Your task to perform on an android device: uninstall "Adobe Express: Graphic Design" Image 0: 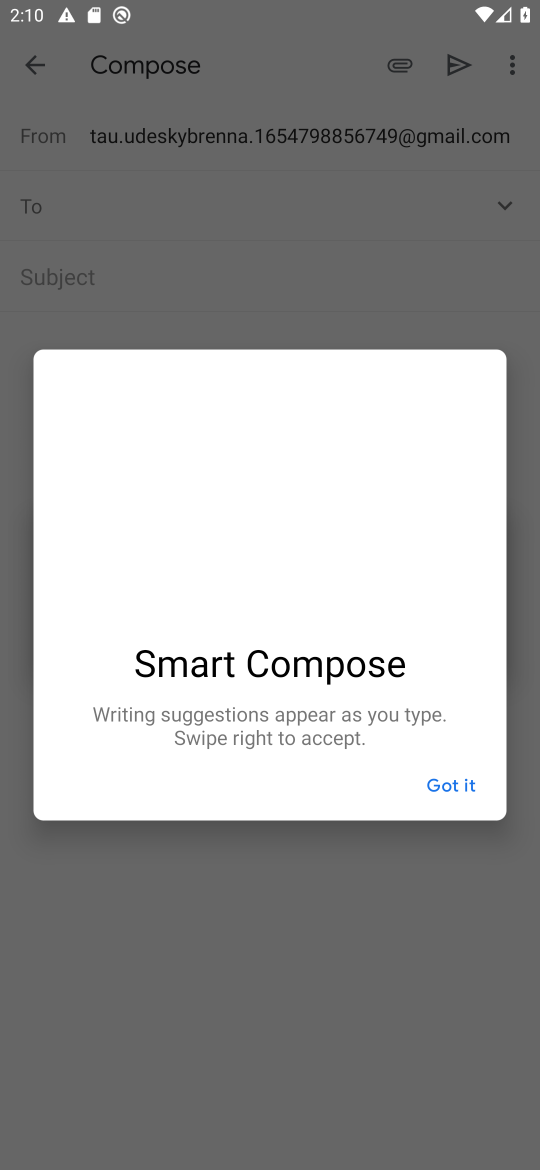
Step 0: press home button
Your task to perform on an android device: uninstall "Adobe Express: Graphic Design" Image 1: 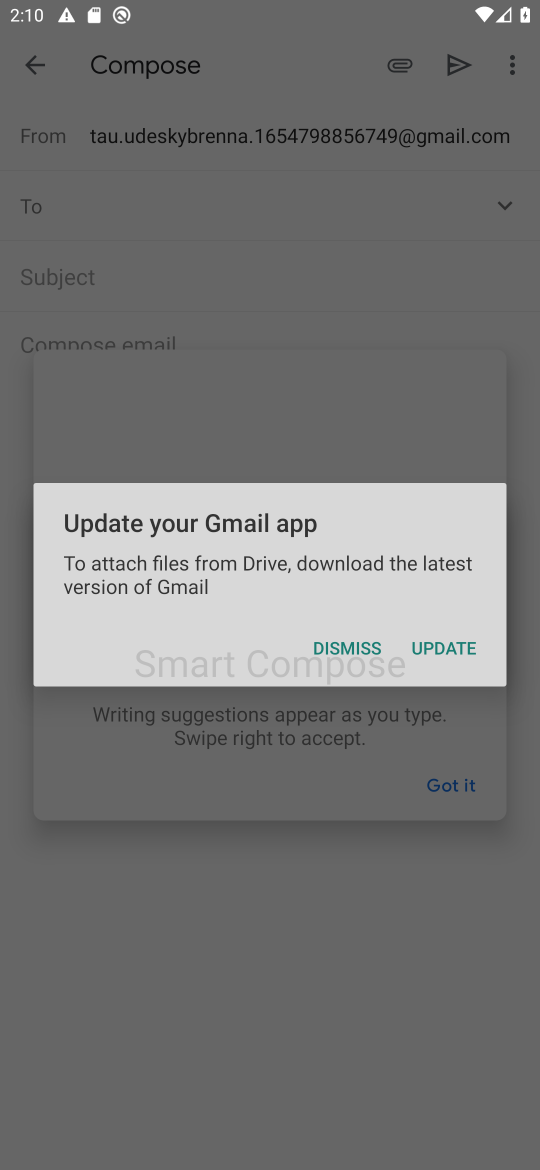
Step 1: press home button
Your task to perform on an android device: uninstall "Adobe Express: Graphic Design" Image 2: 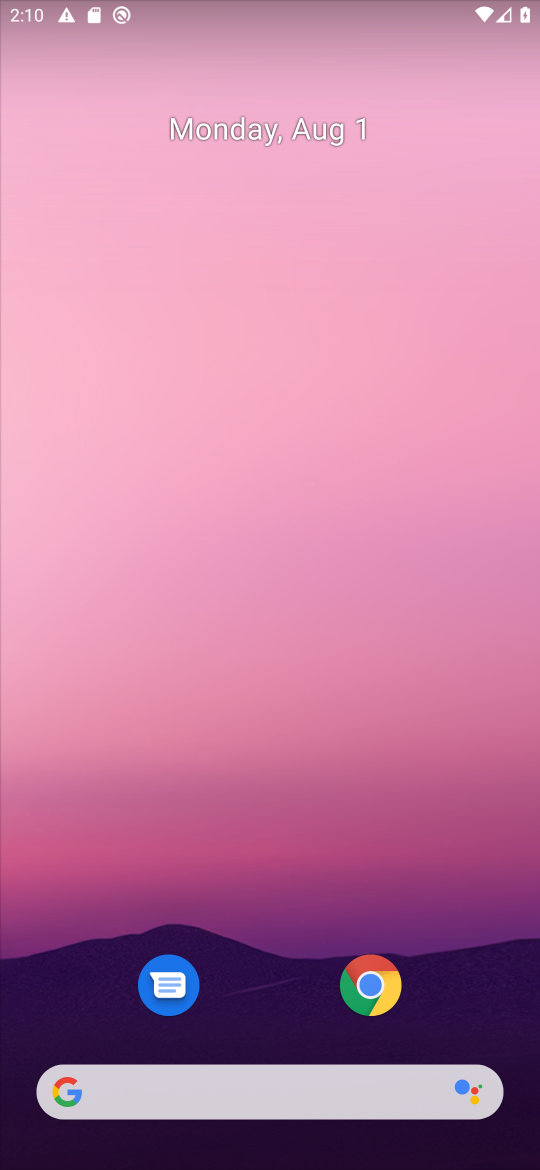
Step 2: drag from (310, 1145) to (342, 99)
Your task to perform on an android device: uninstall "Adobe Express: Graphic Design" Image 3: 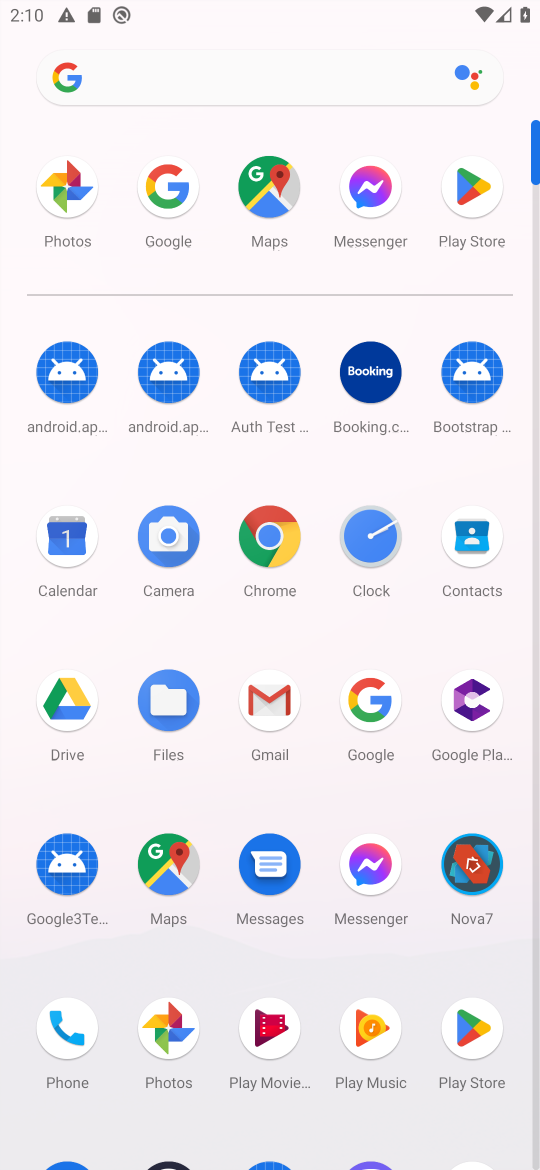
Step 3: click (460, 189)
Your task to perform on an android device: uninstall "Adobe Express: Graphic Design" Image 4: 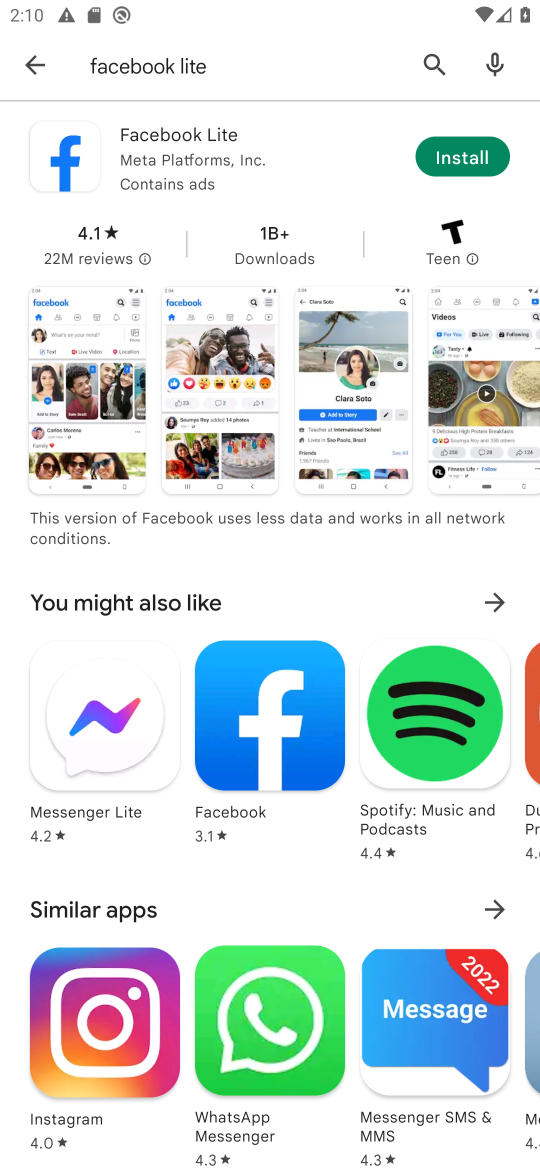
Step 4: click (428, 62)
Your task to perform on an android device: uninstall "Adobe Express: Graphic Design" Image 5: 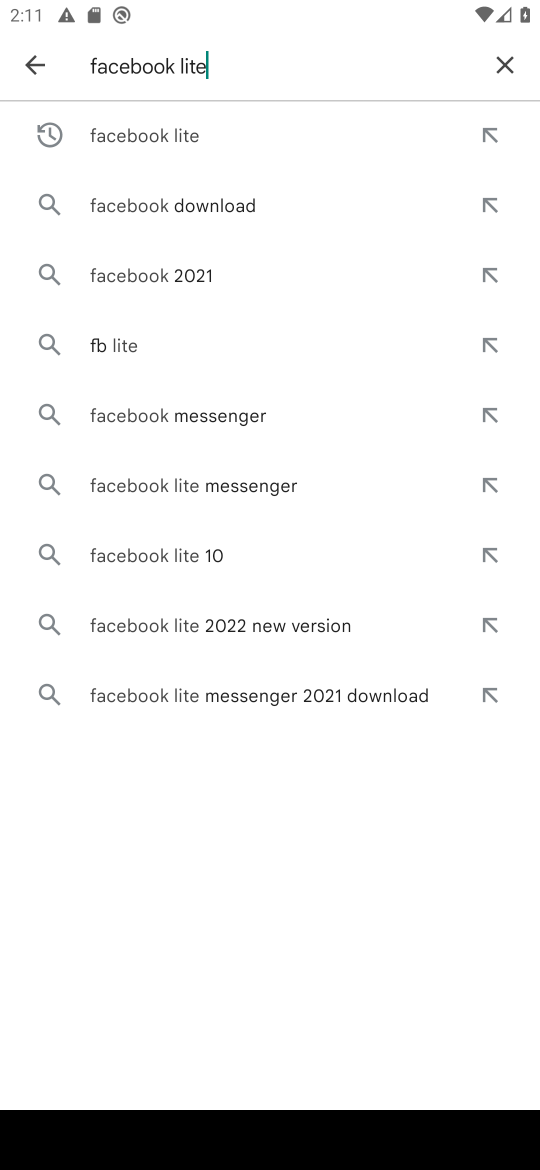
Step 5: click (520, 69)
Your task to perform on an android device: uninstall "Adobe Express: Graphic Design" Image 6: 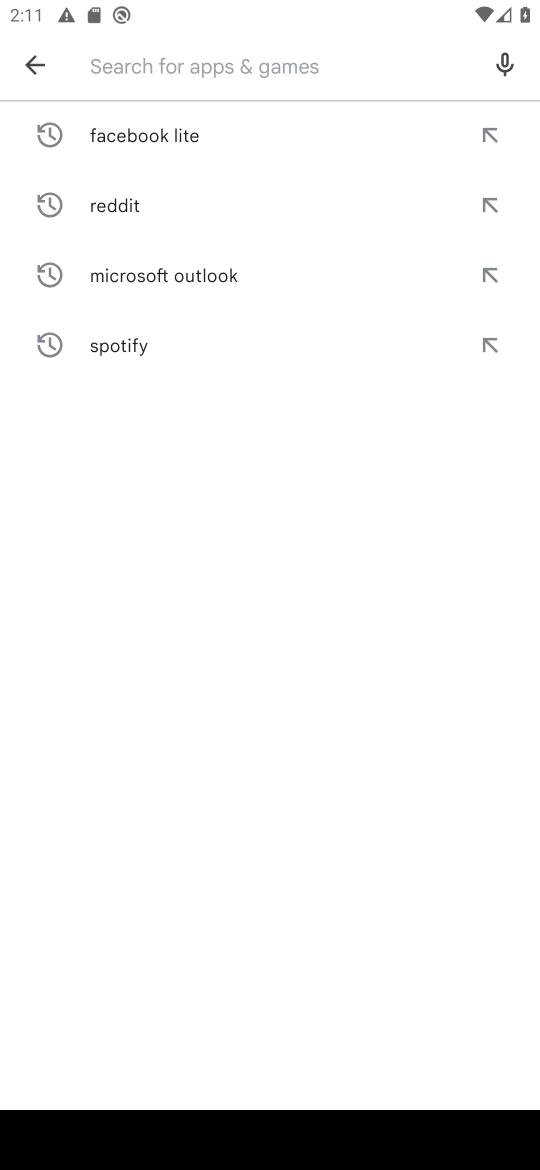
Step 6: type "Adobe Express: Graphic Design"
Your task to perform on an android device: uninstall "Adobe Express: Graphic Design" Image 7: 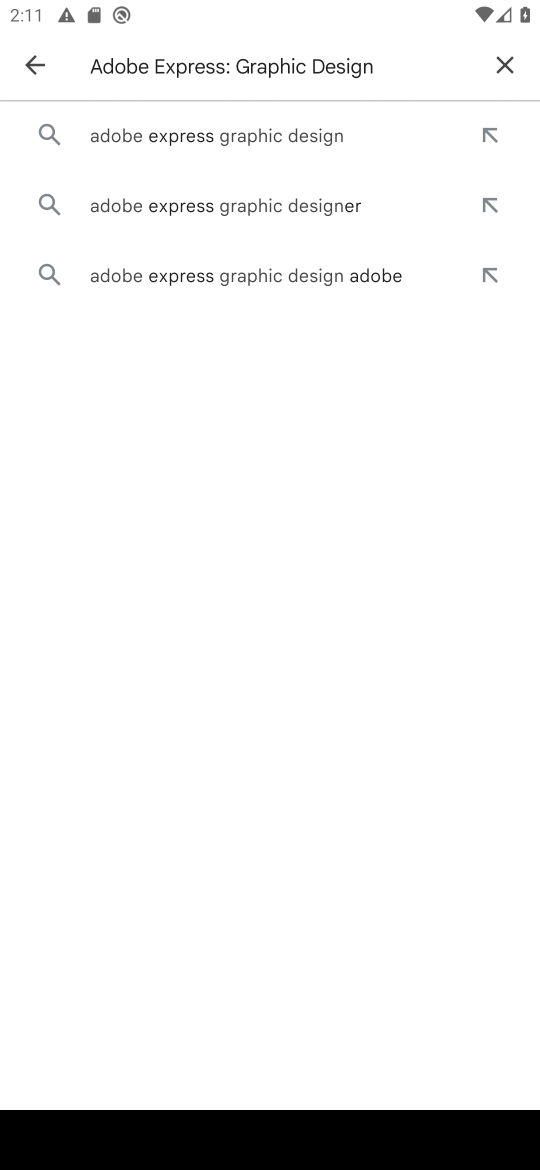
Step 7: click (247, 140)
Your task to perform on an android device: uninstall "Adobe Express: Graphic Design" Image 8: 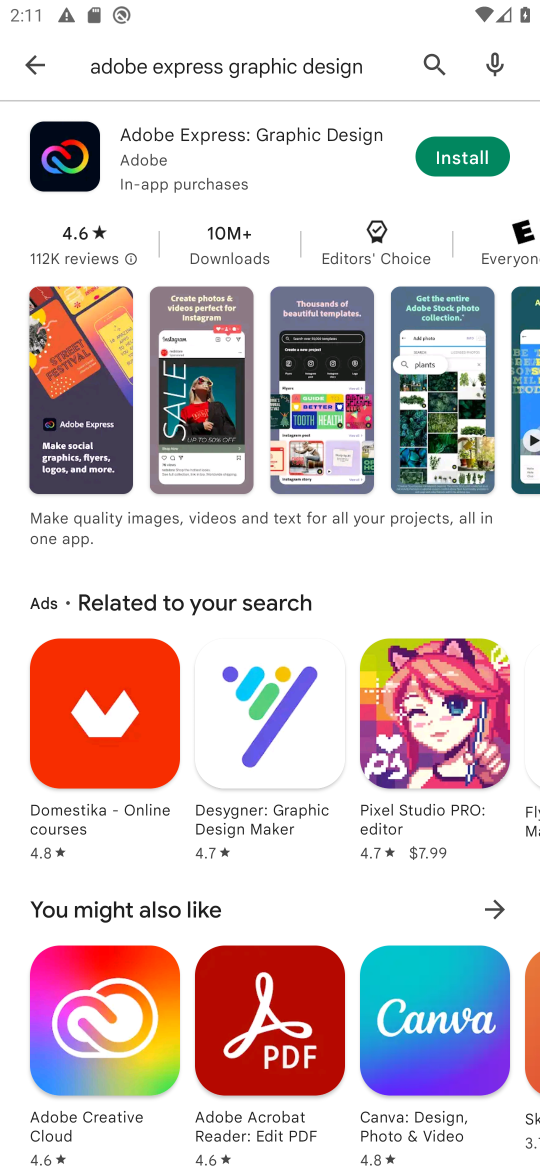
Step 8: click (464, 142)
Your task to perform on an android device: uninstall "Adobe Express: Graphic Design" Image 9: 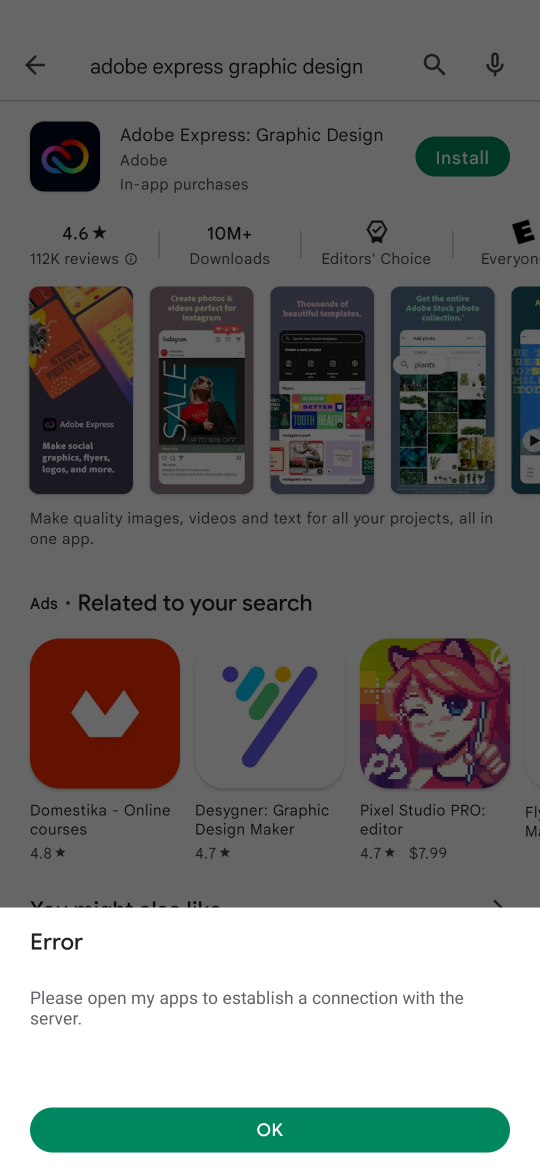
Step 9: click (278, 1127)
Your task to perform on an android device: uninstall "Adobe Express: Graphic Design" Image 10: 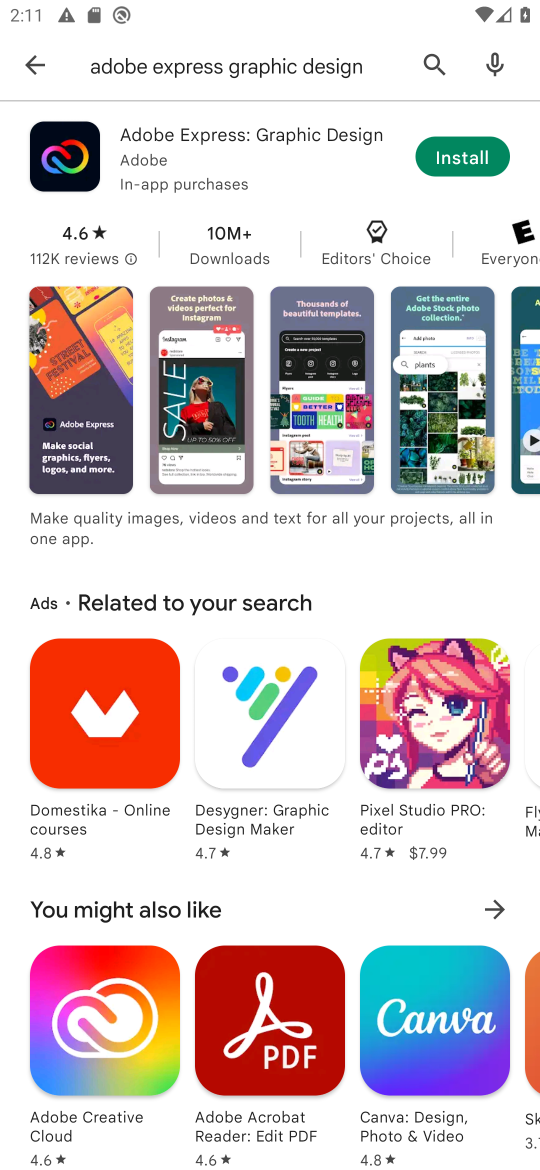
Step 10: click (455, 163)
Your task to perform on an android device: uninstall "Adobe Express: Graphic Design" Image 11: 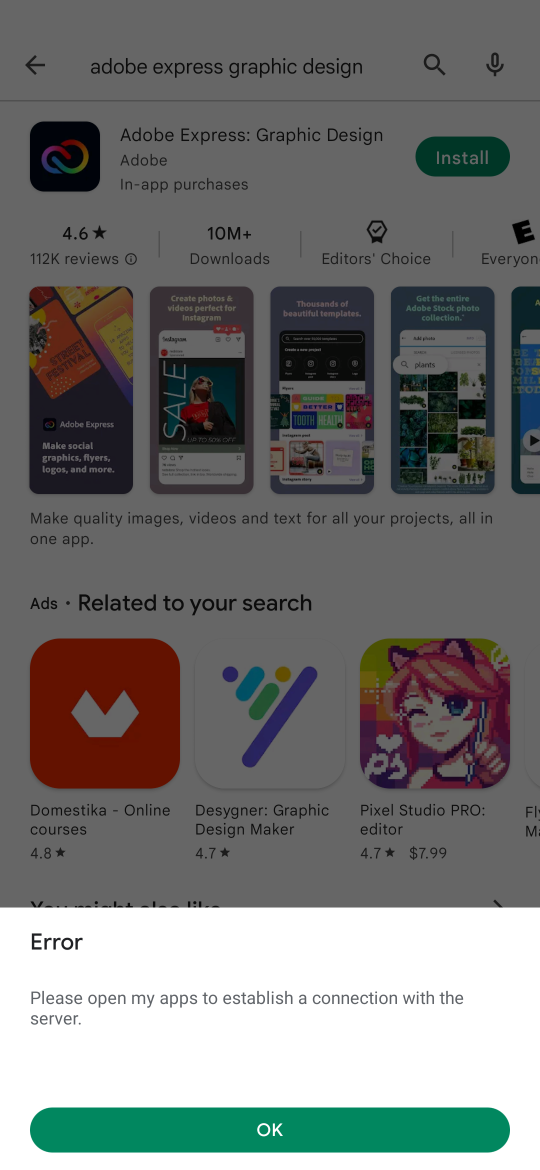
Step 11: task complete